Your task to perform on an android device: Open calendar and show me the third week of next month Image 0: 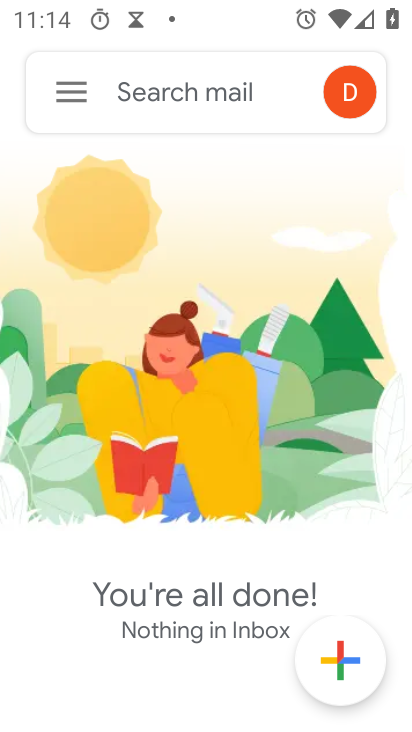
Step 0: press home button
Your task to perform on an android device: Open calendar and show me the third week of next month Image 1: 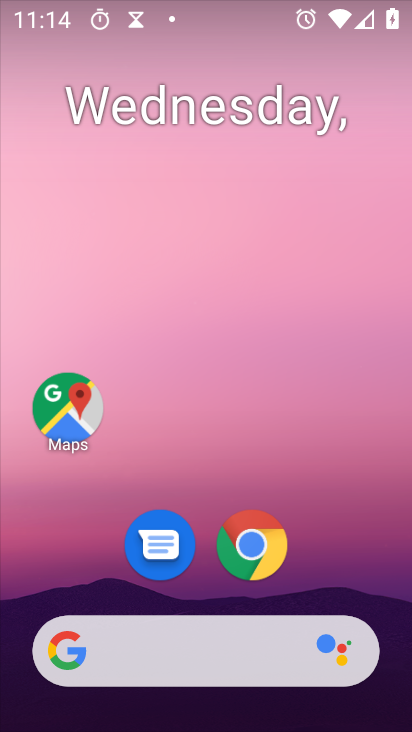
Step 1: drag from (195, 615) to (265, 152)
Your task to perform on an android device: Open calendar and show me the third week of next month Image 2: 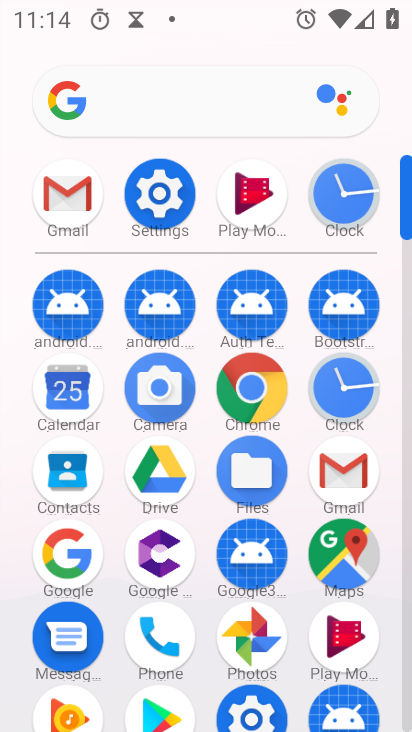
Step 2: click (64, 389)
Your task to perform on an android device: Open calendar and show me the third week of next month Image 3: 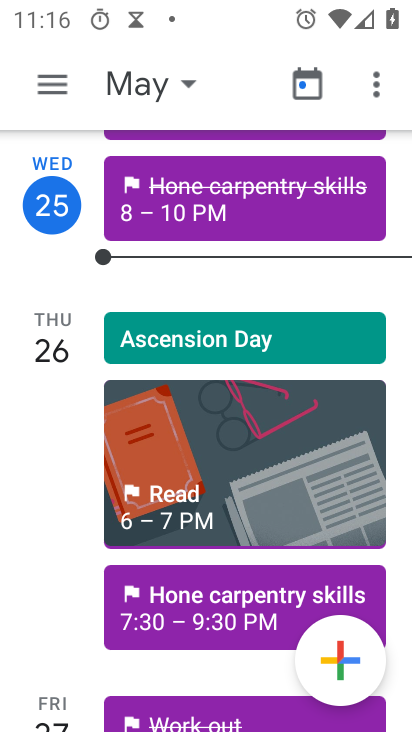
Step 3: click (130, 88)
Your task to perform on an android device: Open calendar and show me the third week of next month Image 4: 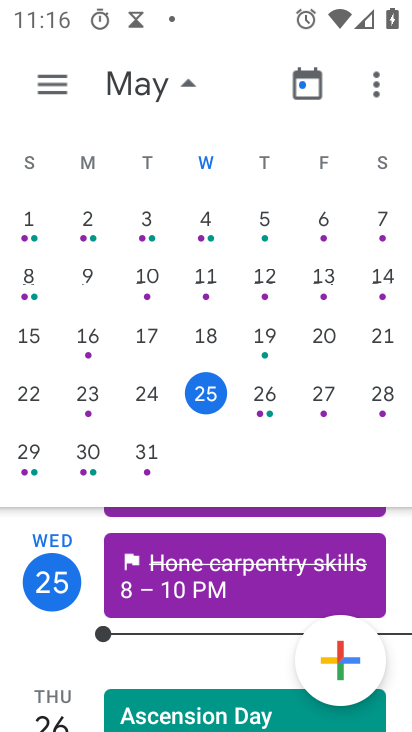
Step 4: drag from (359, 370) to (0, 360)
Your task to perform on an android device: Open calendar and show me the third week of next month Image 5: 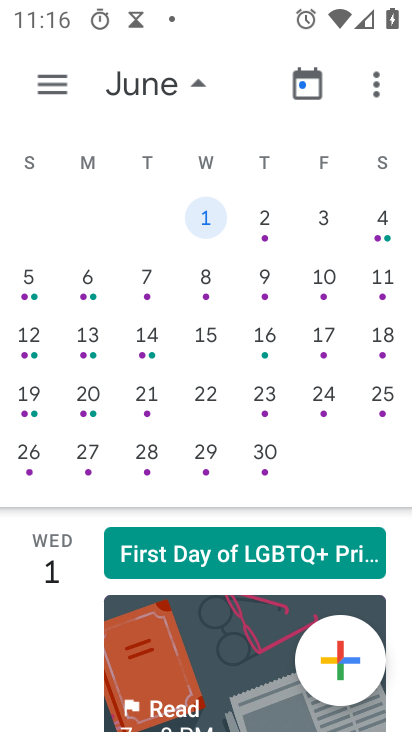
Step 5: click (27, 339)
Your task to perform on an android device: Open calendar and show me the third week of next month Image 6: 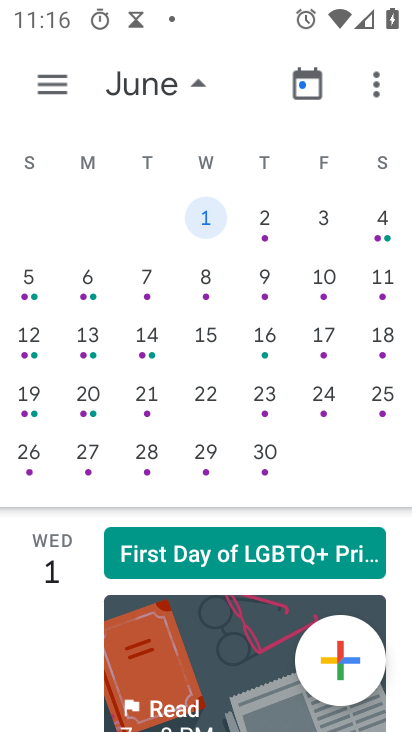
Step 6: click (33, 334)
Your task to perform on an android device: Open calendar and show me the third week of next month Image 7: 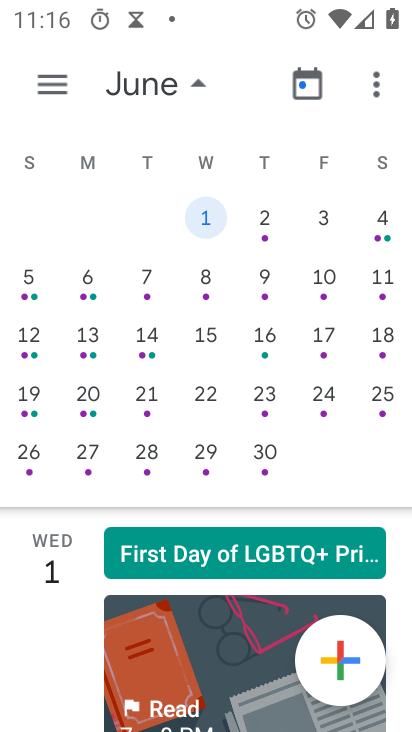
Step 7: click (36, 339)
Your task to perform on an android device: Open calendar and show me the third week of next month Image 8: 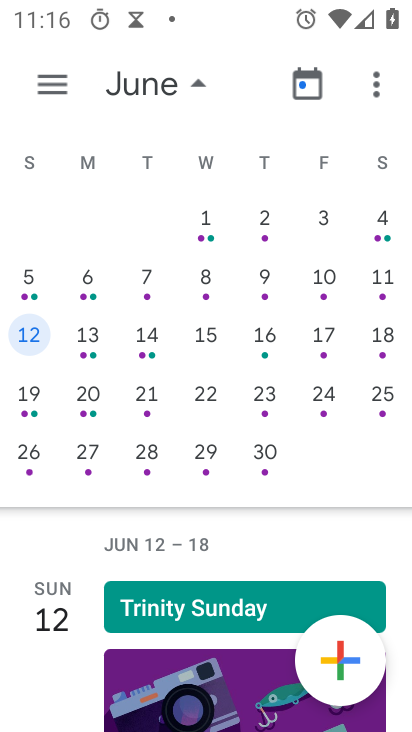
Step 8: click (56, 81)
Your task to perform on an android device: Open calendar and show me the third week of next month Image 9: 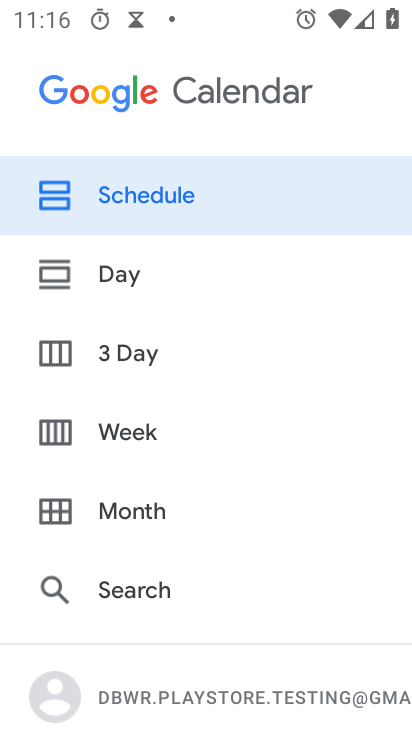
Step 9: click (142, 435)
Your task to perform on an android device: Open calendar and show me the third week of next month Image 10: 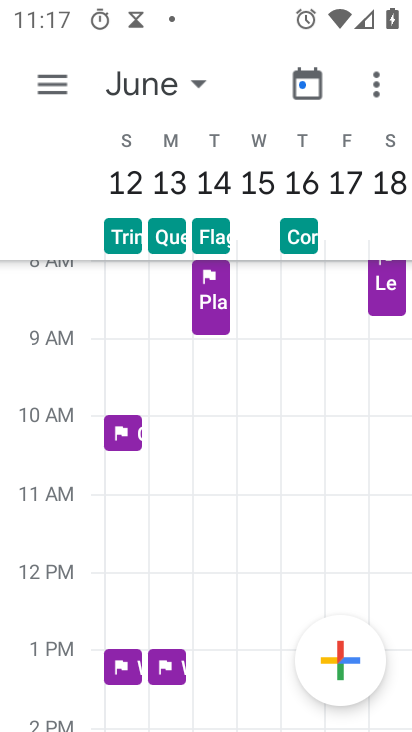
Step 10: task complete